Your task to perform on an android device: uninstall "Life360: Find Family & Friends" Image 0: 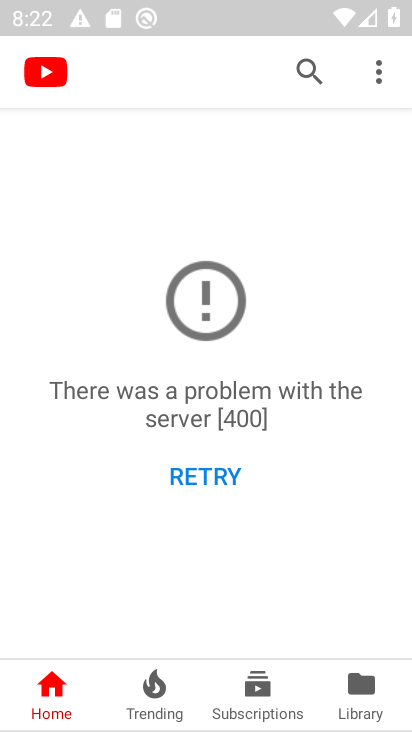
Step 0: press home button
Your task to perform on an android device: uninstall "Life360: Find Family & Friends" Image 1: 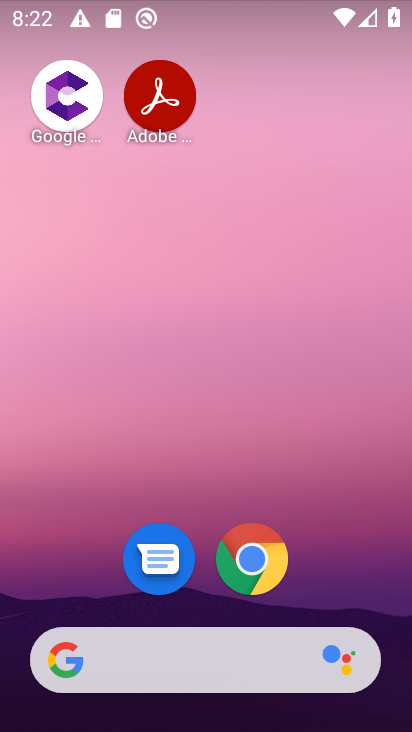
Step 1: drag from (203, 614) to (144, 19)
Your task to perform on an android device: uninstall "Life360: Find Family & Friends" Image 2: 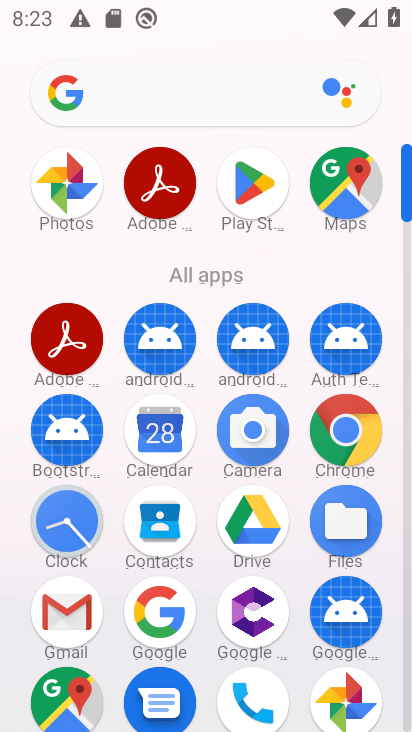
Step 2: click (231, 166)
Your task to perform on an android device: uninstall "Life360: Find Family & Friends" Image 3: 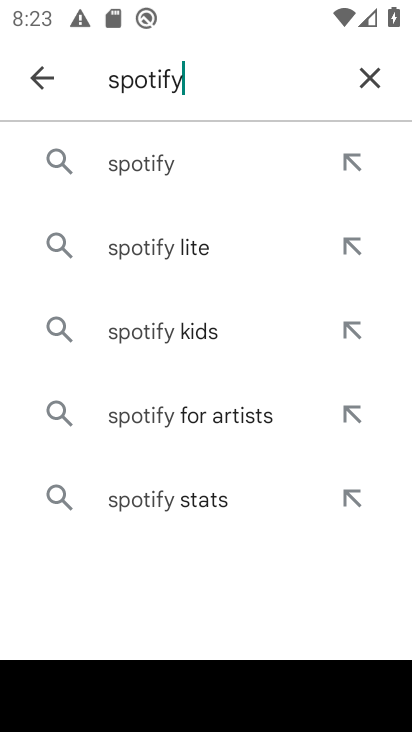
Step 3: click (358, 80)
Your task to perform on an android device: uninstall "Life360: Find Family & Friends" Image 4: 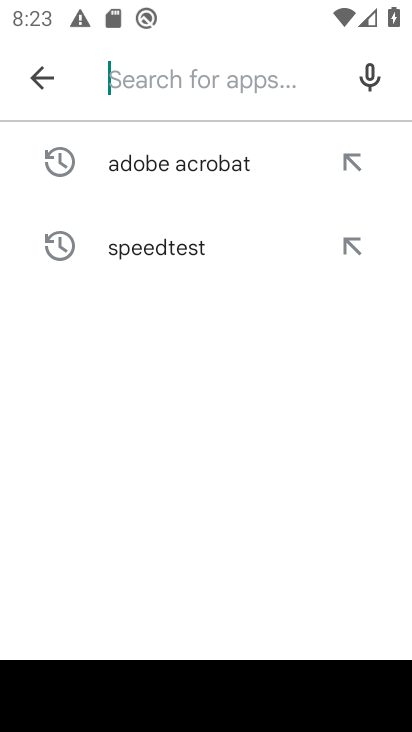
Step 4: type "life360"
Your task to perform on an android device: uninstall "Life360: Find Family & Friends" Image 5: 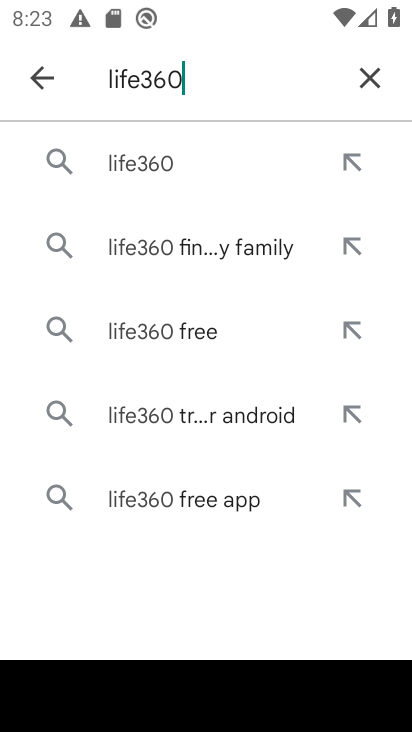
Step 5: click (197, 163)
Your task to perform on an android device: uninstall "Life360: Find Family & Friends" Image 6: 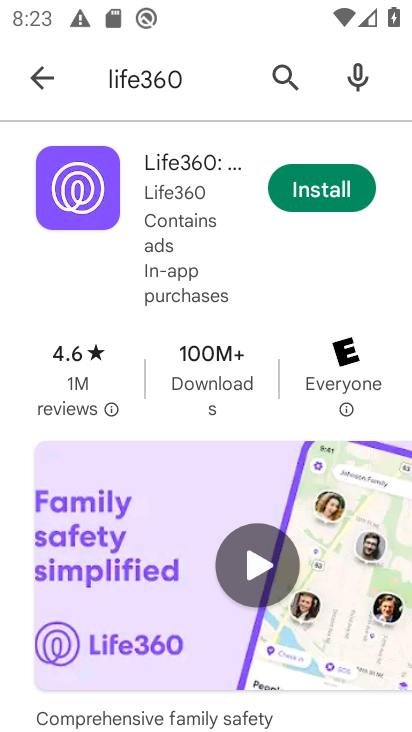
Step 6: task complete